Your task to perform on an android device: Empty the shopping cart on bestbuy. Image 0: 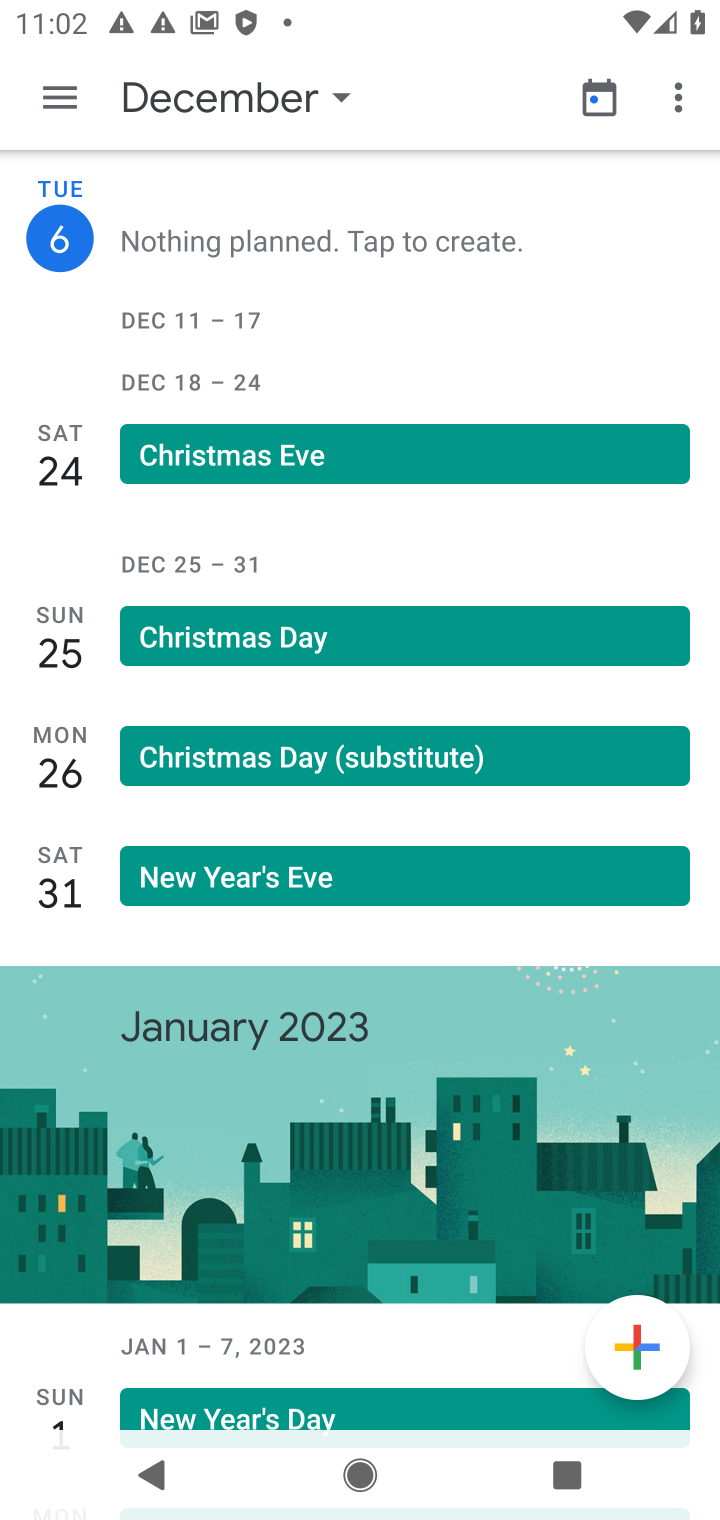
Step 0: press home button
Your task to perform on an android device: Empty the shopping cart on bestbuy. Image 1: 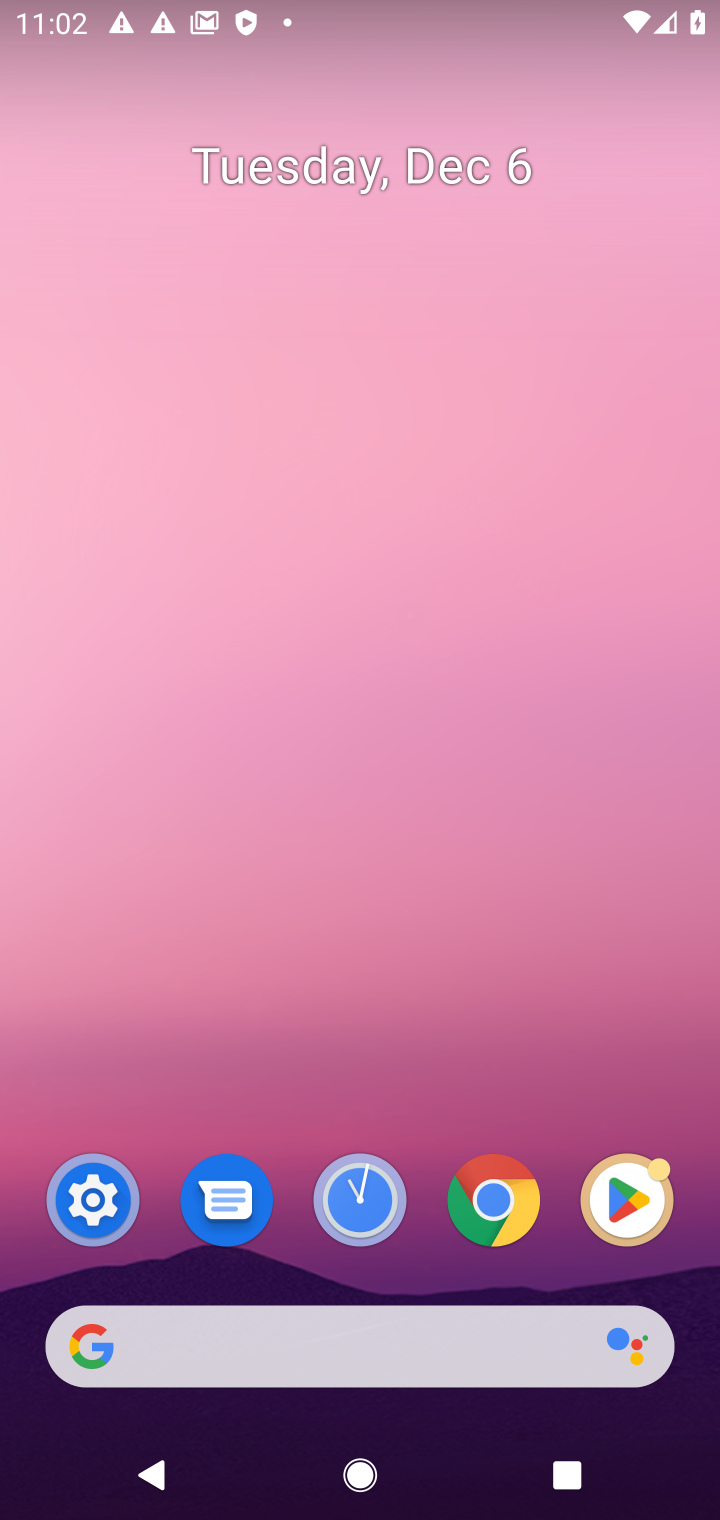
Step 1: click (307, 1337)
Your task to perform on an android device: Empty the shopping cart on bestbuy. Image 2: 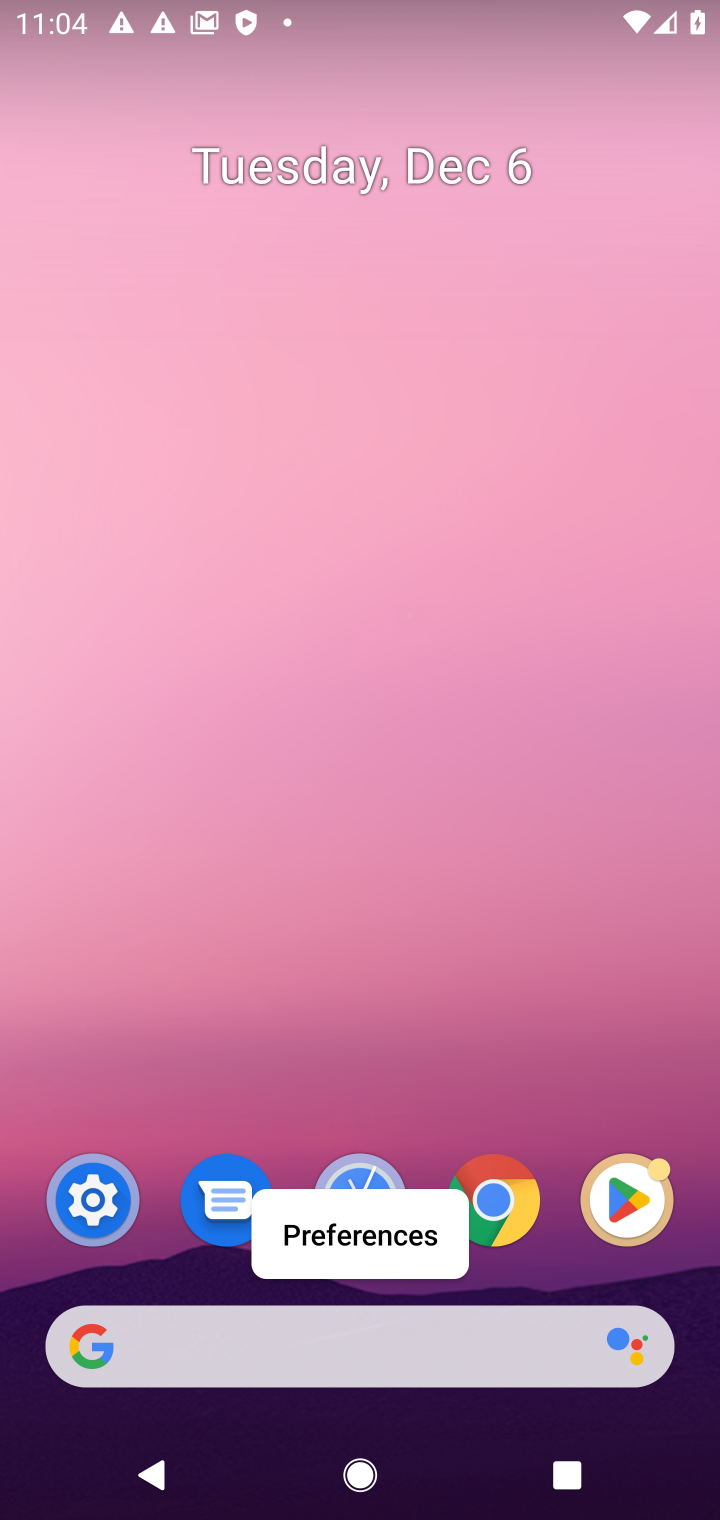
Step 2: click (270, 1363)
Your task to perform on an android device: Empty the shopping cart on bestbuy. Image 3: 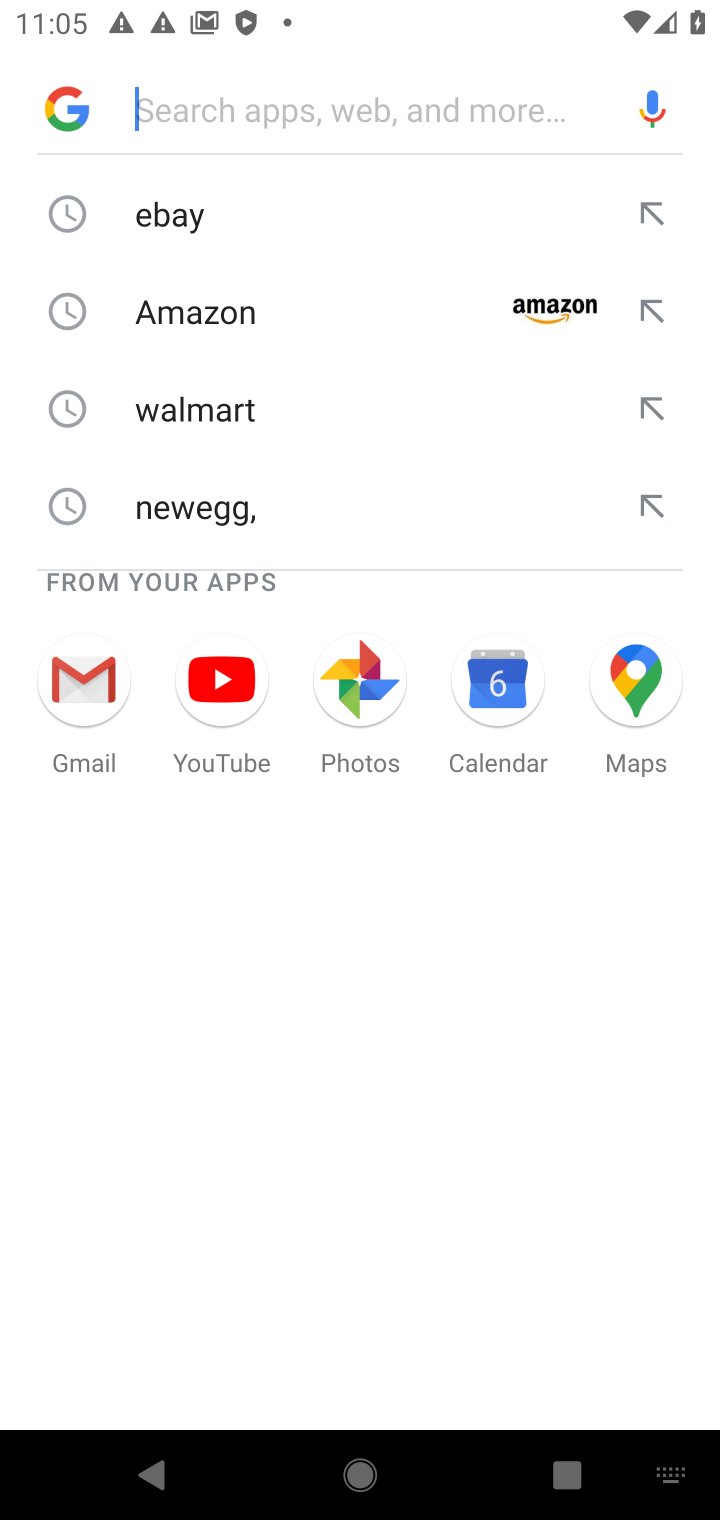
Step 3: type "bestbuy"
Your task to perform on an android device: Empty the shopping cart on bestbuy. Image 4: 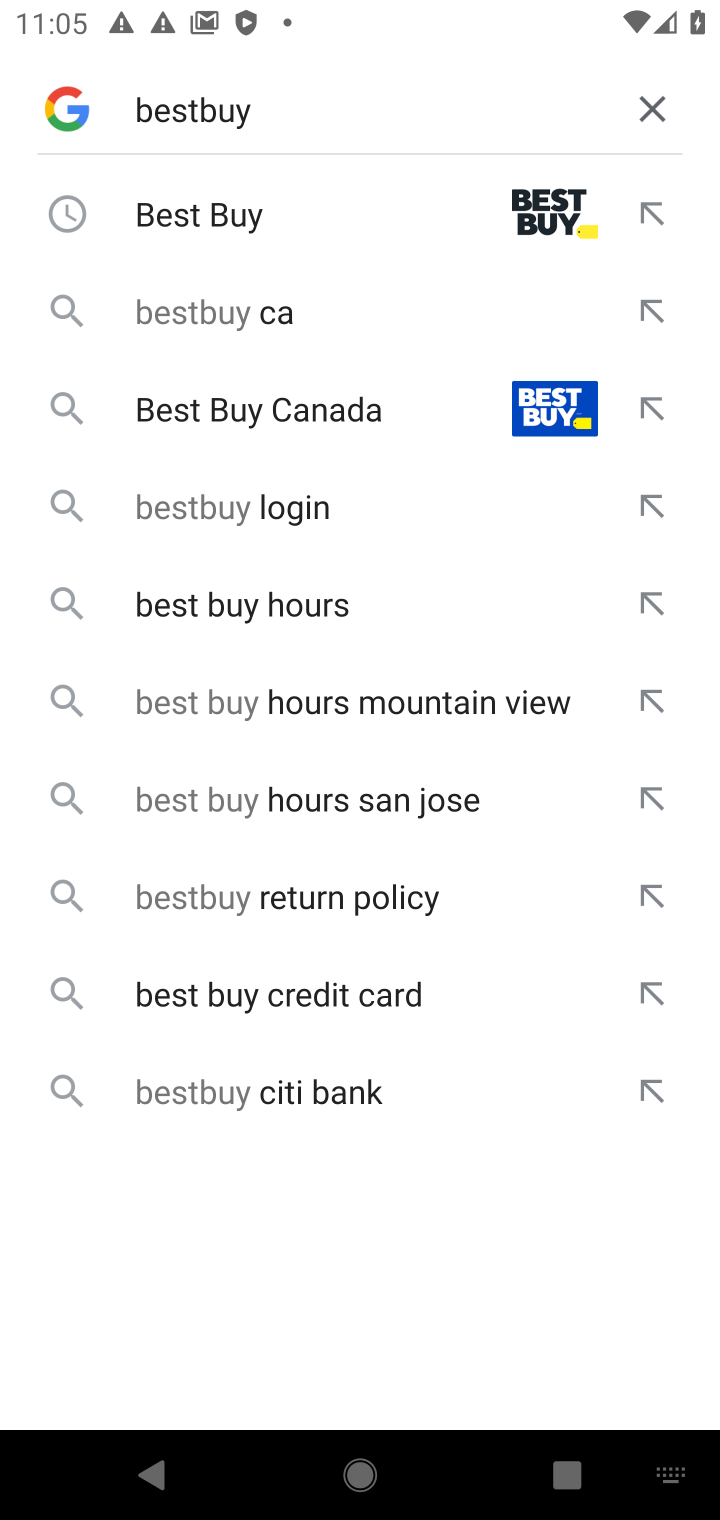
Step 4: click (231, 243)
Your task to perform on an android device: Empty the shopping cart on bestbuy. Image 5: 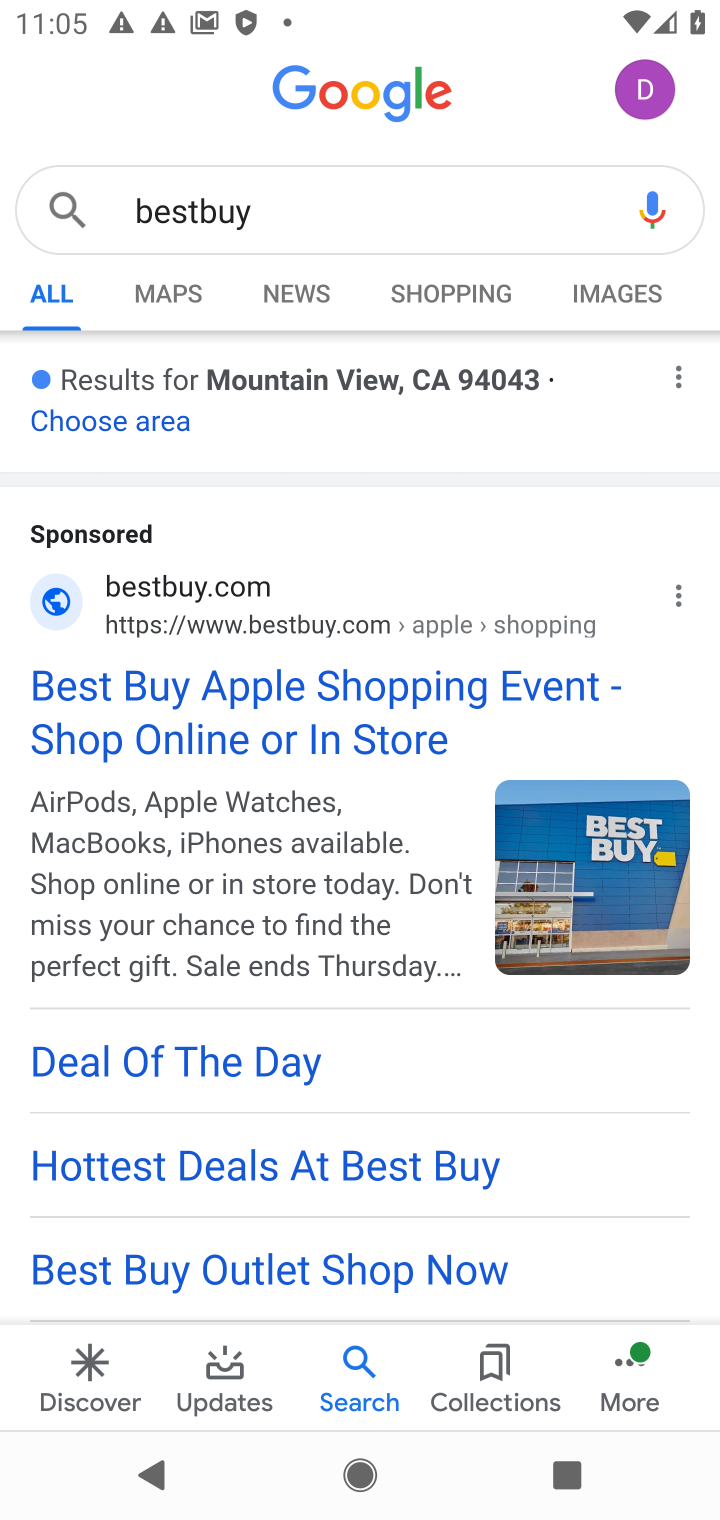
Step 5: click (46, 741)
Your task to perform on an android device: Empty the shopping cart on bestbuy. Image 6: 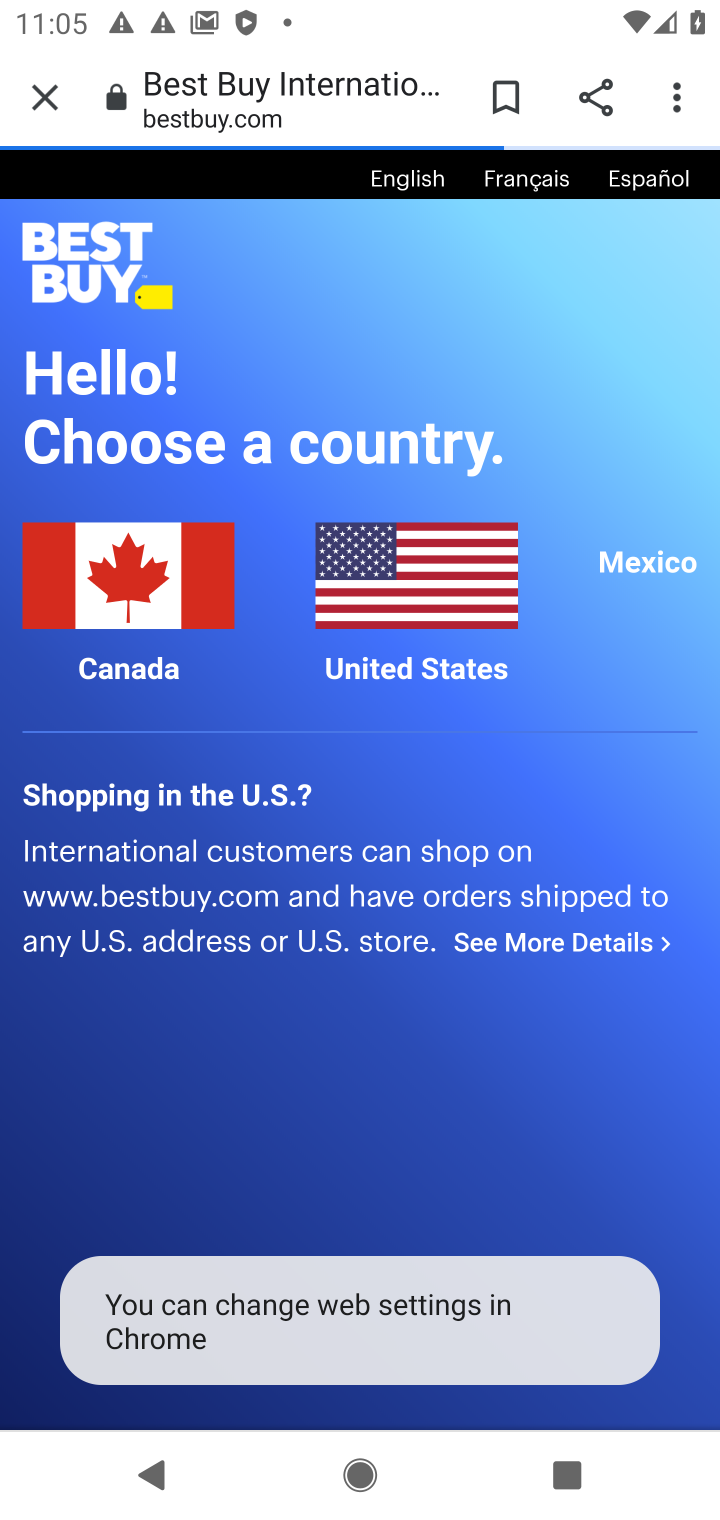
Step 6: click (171, 732)
Your task to perform on an android device: Empty the shopping cart on bestbuy. Image 7: 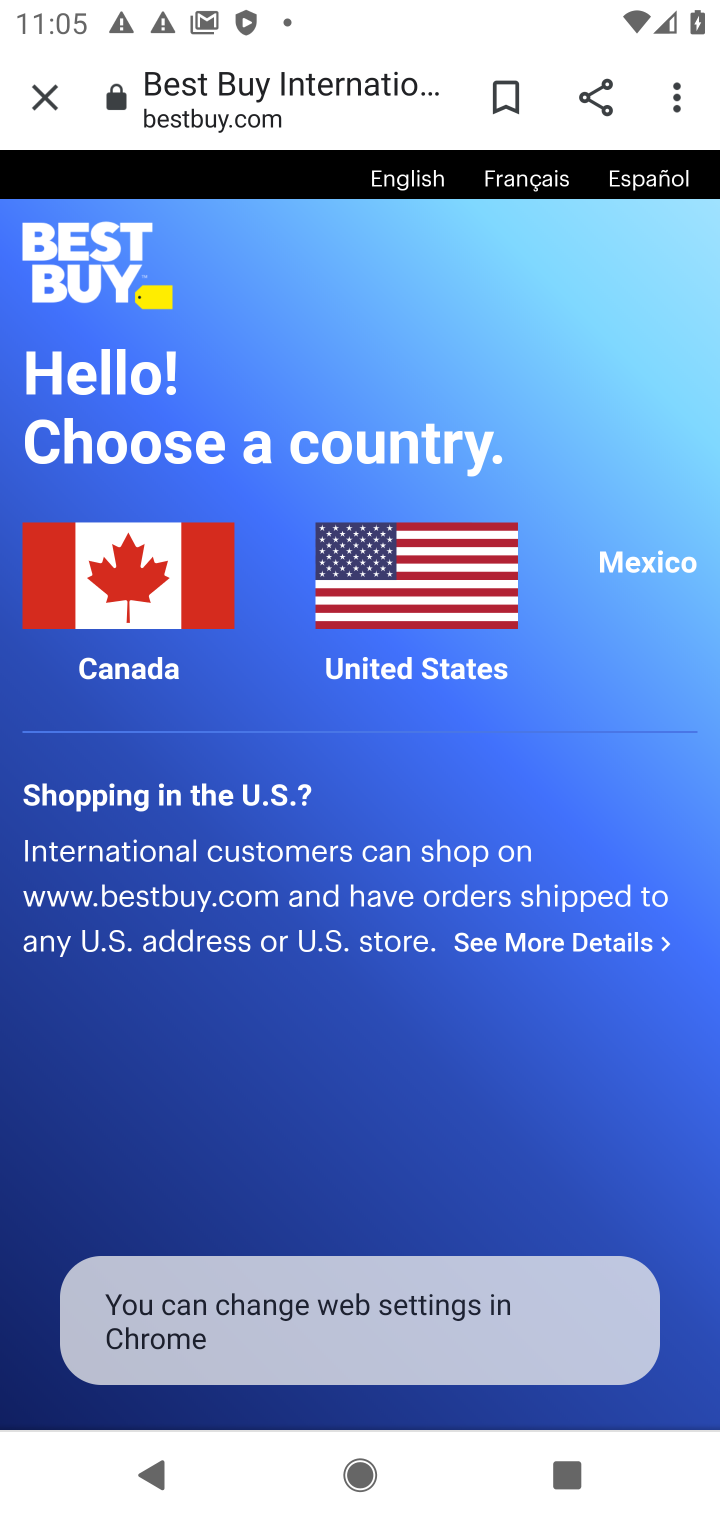
Step 7: click (154, 697)
Your task to perform on an android device: Empty the shopping cart on bestbuy. Image 8: 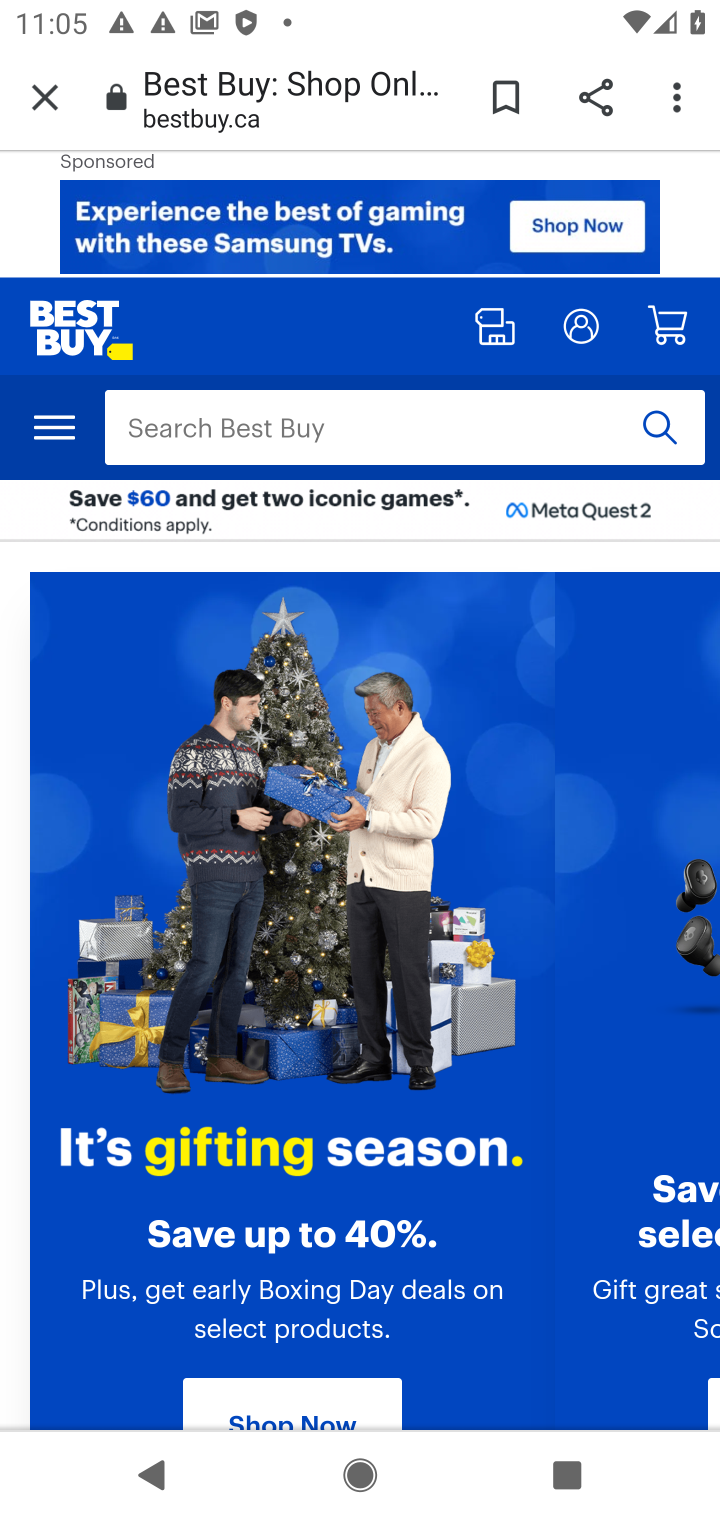
Step 8: click (300, 429)
Your task to perform on an android device: Empty the shopping cart on bestbuy. Image 9: 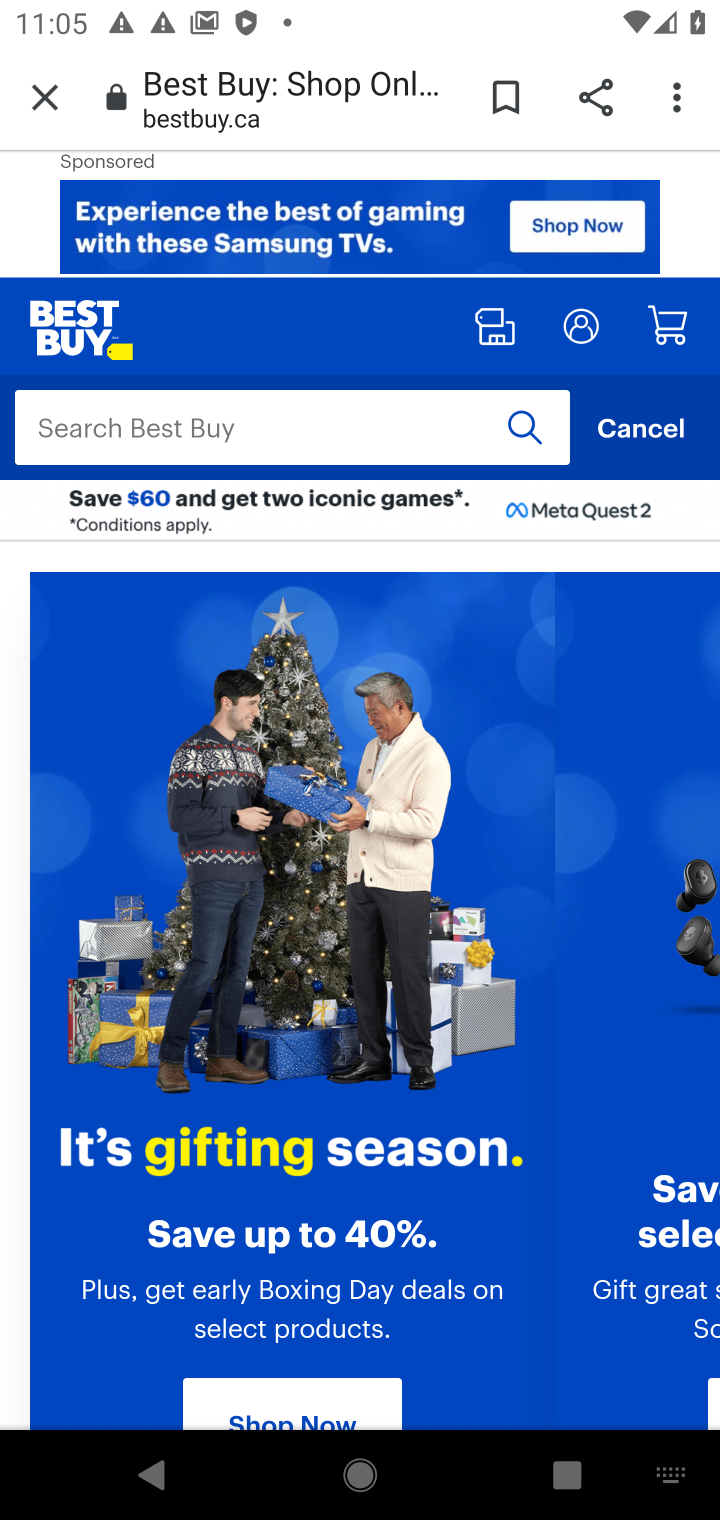
Step 9: click (688, 343)
Your task to perform on an android device: Empty the shopping cart on bestbuy. Image 10: 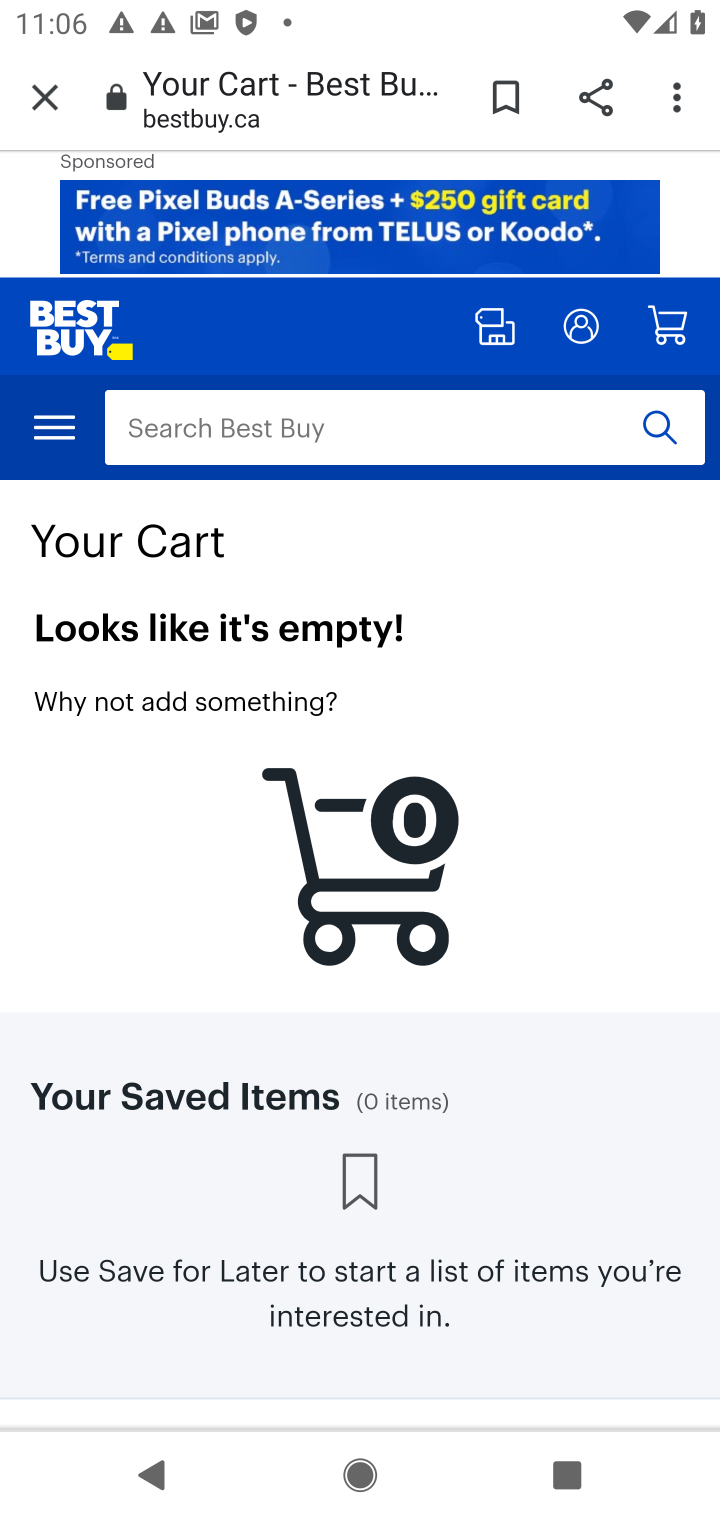
Step 10: task complete